Your task to perform on an android device: Do I have any events this weekend? Image 0: 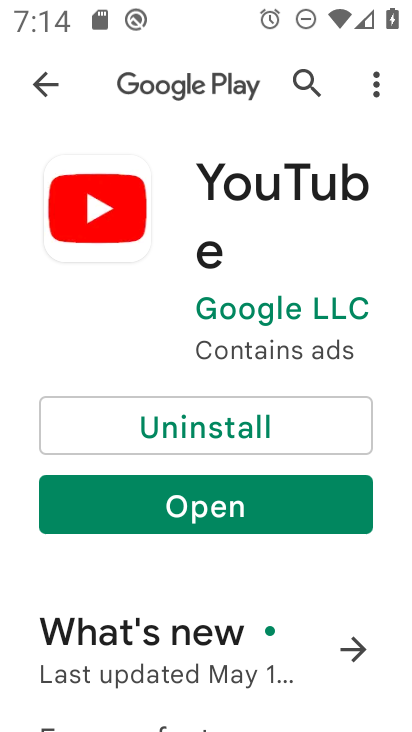
Step 0: press home button
Your task to perform on an android device: Do I have any events this weekend? Image 1: 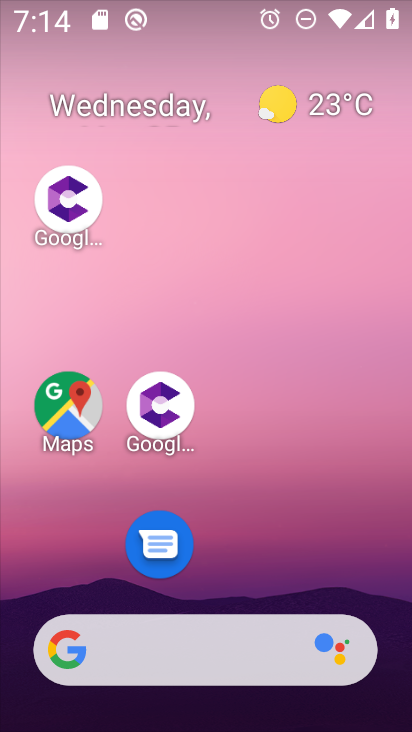
Step 1: drag from (270, 518) to (202, 29)
Your task to perform on an android device: Do I have any events this weekend? Image 2: 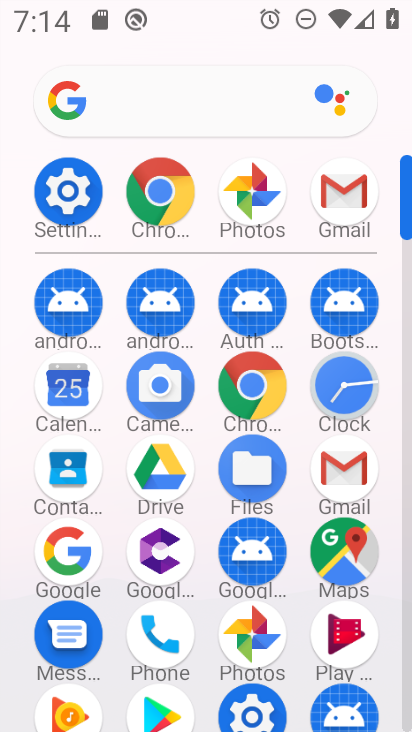
Step 2: click (64, 388)
Your task to perform on an android device: Do I have any events this weekend? Image 3: 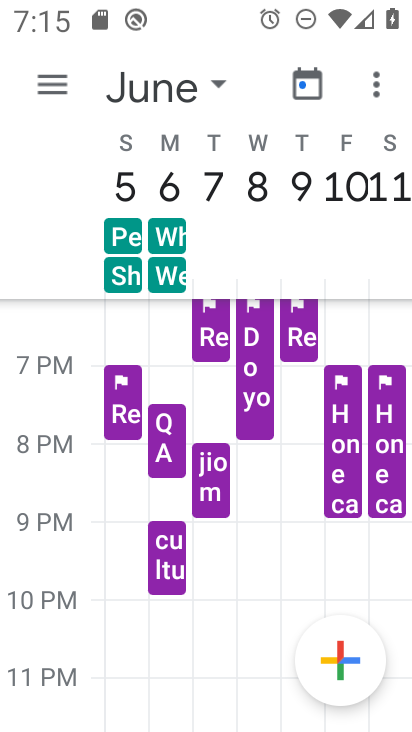
Step 3: click (226, 77)
Your task to perform on an android device: Do I have any events this weekend? Image 4: 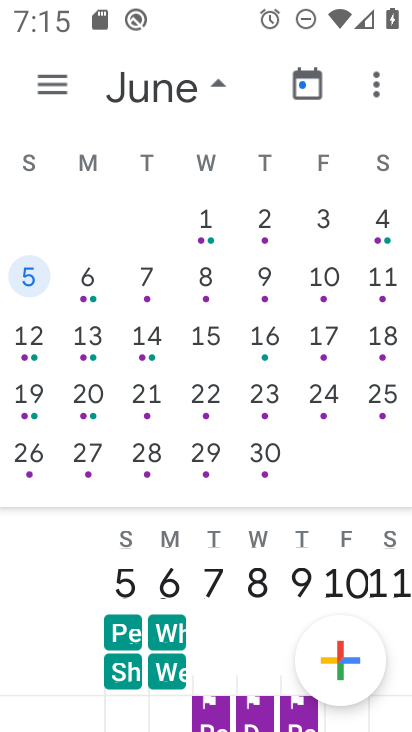
Step 4: drag from (58, 351) to (347, 367)
Your task to perform on an android device: Do I have any events this weekend? Image 5: 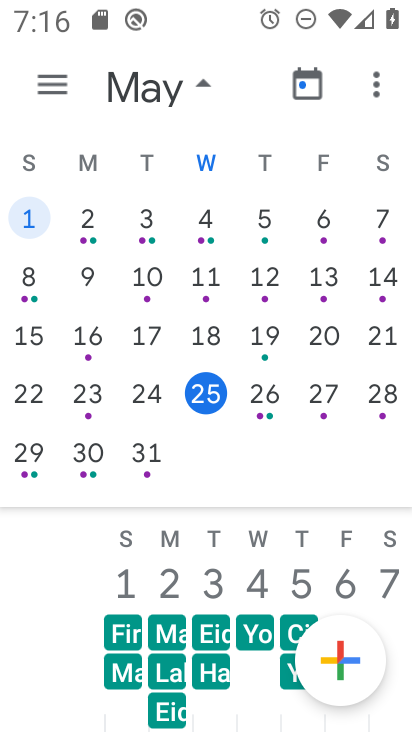
Step 5: click (197, 392)
Your task to perform on an android device: Do I have any events this weekend? Image 6: 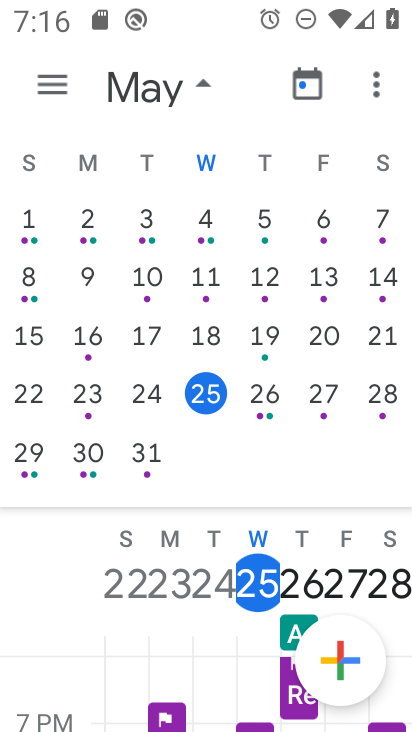
Step 6: task complete